Your task to perform on an android device: Open the stopwatch Image 0: 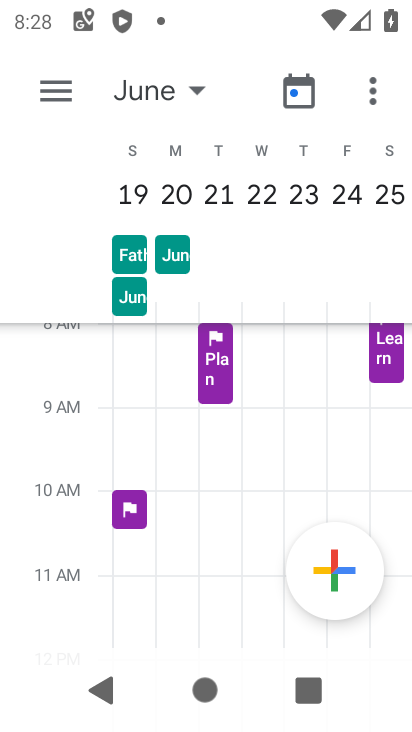
Step 0: press home button
Your task to perform on an android device: Open the stopwatch Image 1: 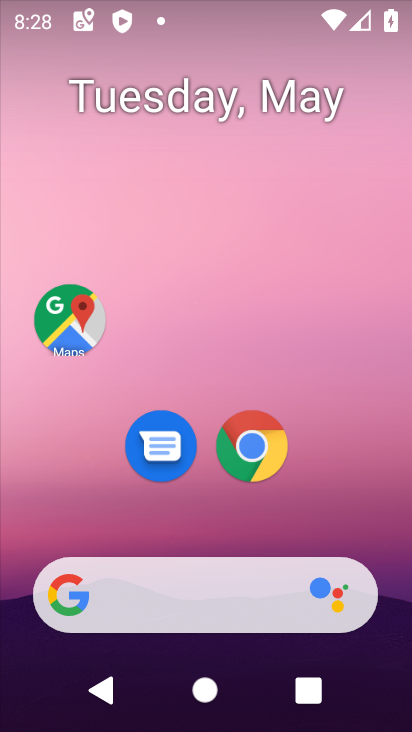
Step 1: drag from (353, 546) to (352, 5)
Your task to perform on an android device: Open the stopwatch Image 2: 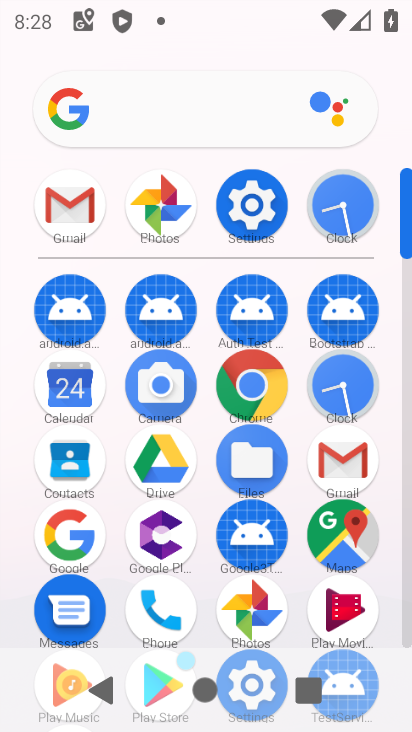
Step 2: click (346, 214)
Your task to perform on an android device: Open the stopwatch Image 3: 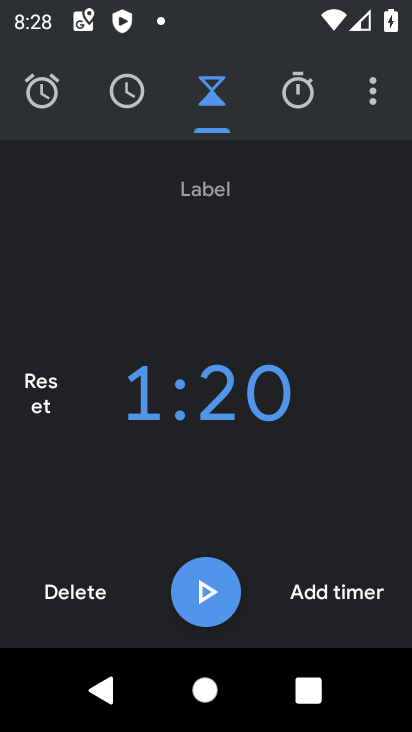
Step 3: click (303, 99)
Your task to perform on an android device: Open the stopwatch Image 4: 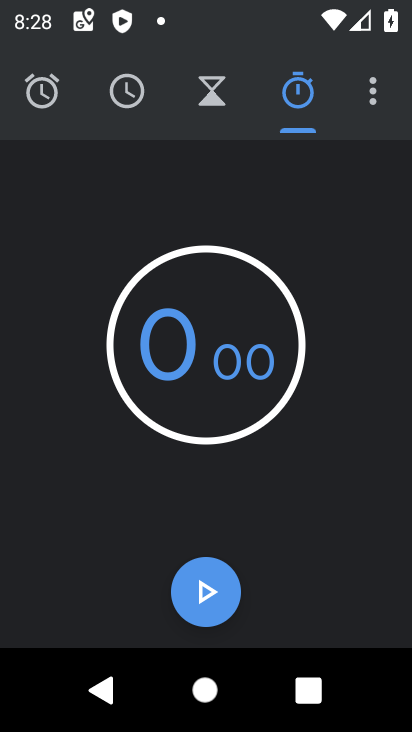
Step 4: task complete